Your task to perform on an android device: turn on location history Image 0: 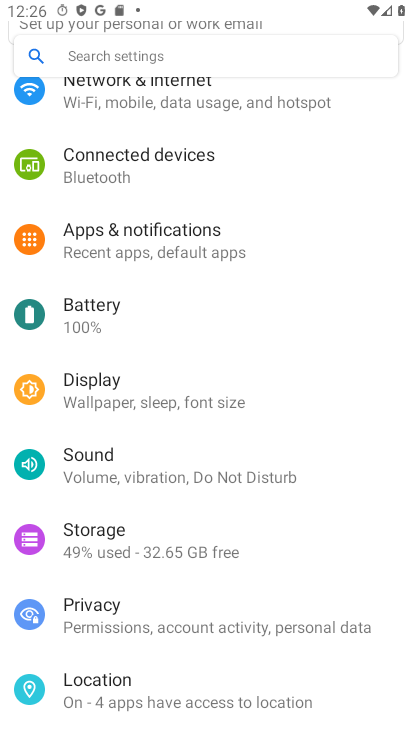
Step 0: click (138, 680)
Your task to perform on an android device: turn on location history Image 1: 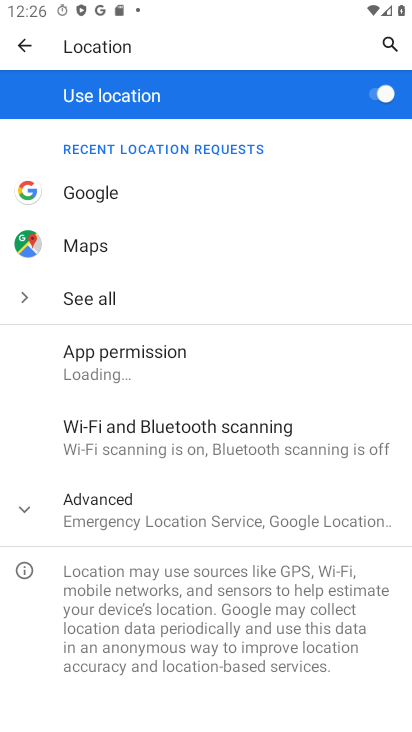
Step 1: click (125, 517)
Your task to perform on an android device: turn on location history Image 2: 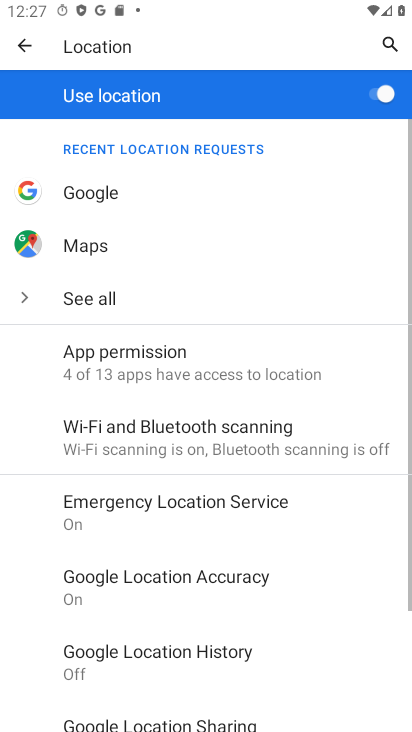
Step 2: click (171, 653)
Your task to perform on an android device: turn on location history Image 3: 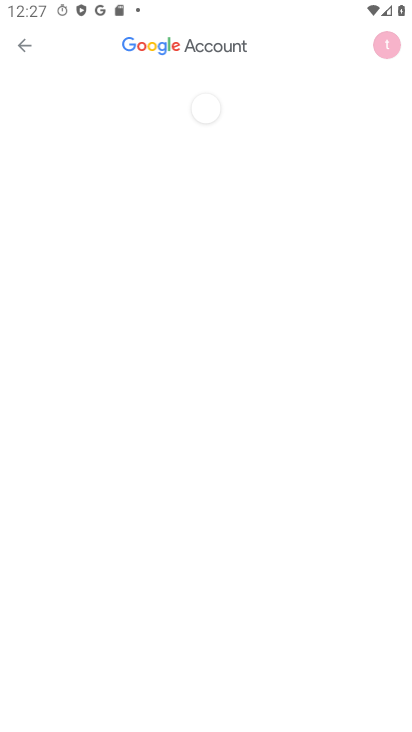
Step 3: drag from (244, 626) to (229, 360)
Your task to perform on an android device: turn on location history Image 4: 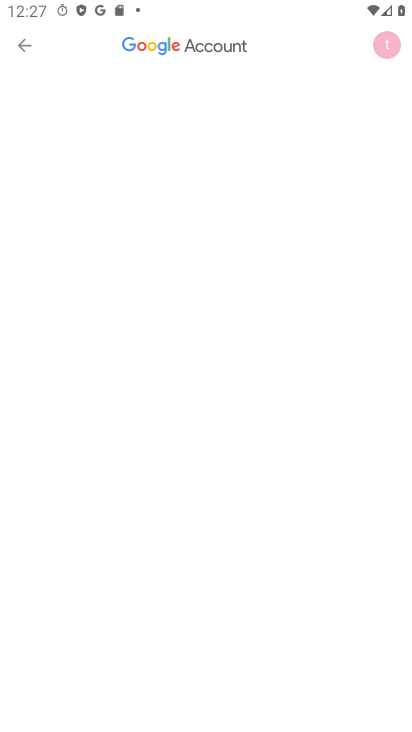
Step 4: drag from (229, 545) to (265, 327)
Your task to perform on an android device: turn on location history Image 5: 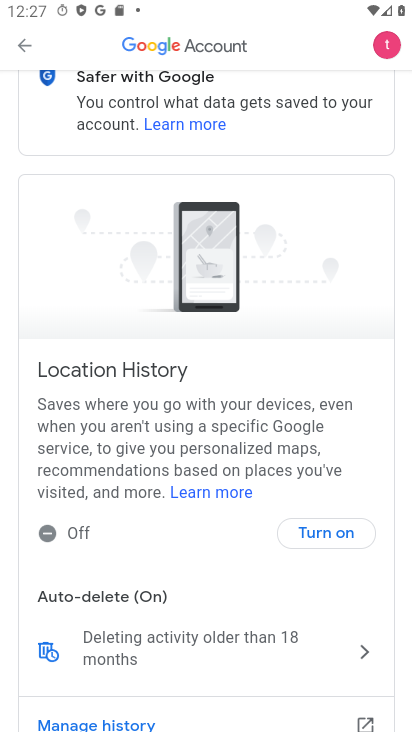
Step 5: drag from (209, 664) to (245, 391)
Your task to perform on an android device: turn on location history Image 6: 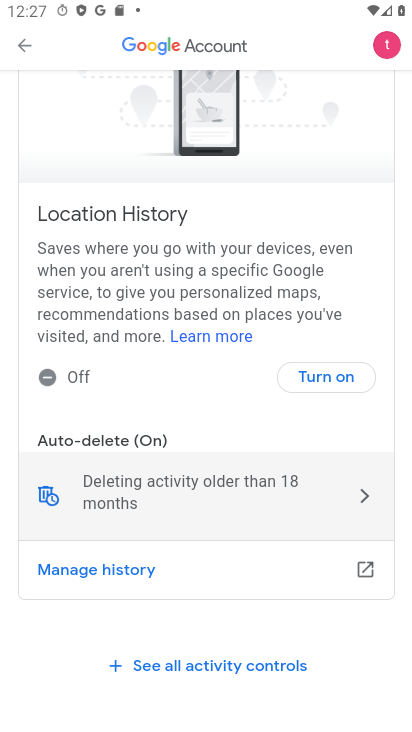
Step 6: click (321, 377)
Your task to perform on an android device: turn on location history Image 7: 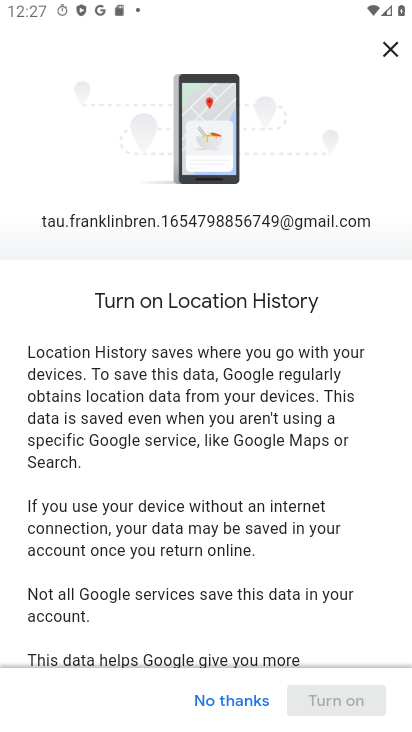
Step 7: drag from (244, 588) to (344, 122)
Your task to perform on an android device: turn on location history Image 8: 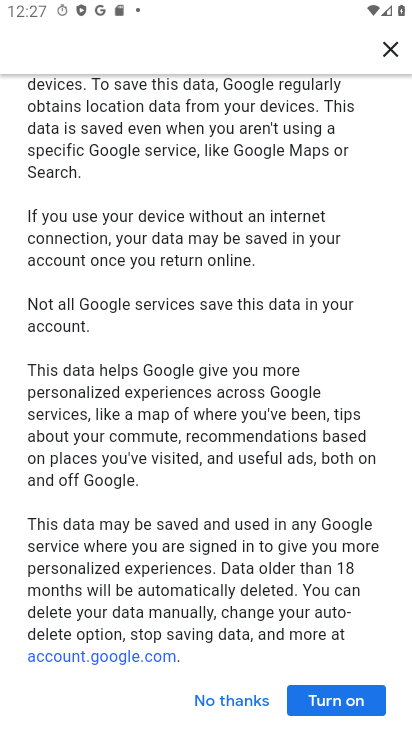
Step 8: drag from (215, 619) to (247, 365)
Your task to perform on an android device: turn on location history Image 9: 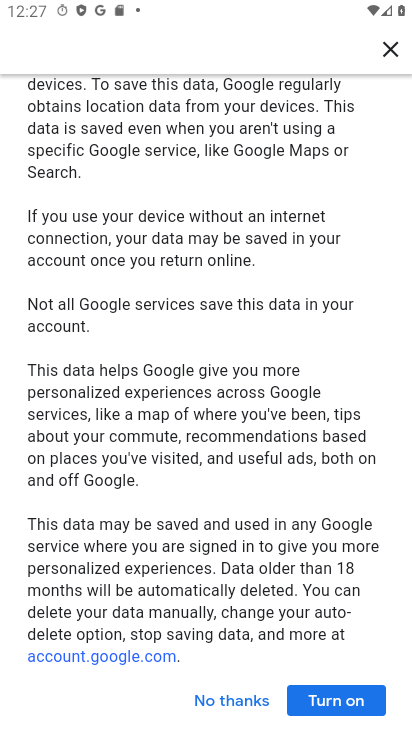
Step 9: click (332, 700)
Your task to perform on an android device: turn on location history Image 10: 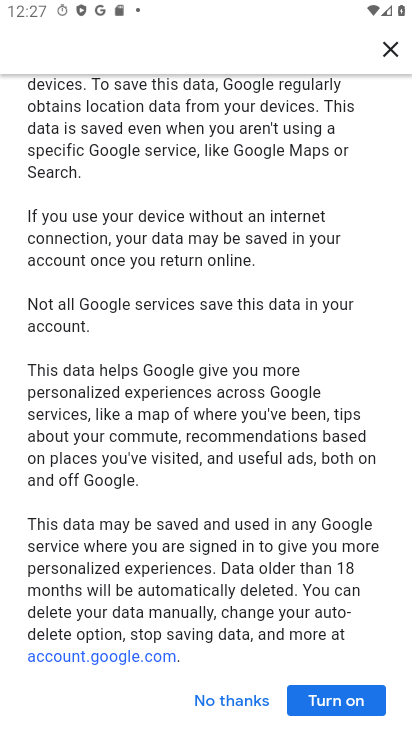
Step 10: click (332, 700)
Your task to perform on an android device: turn on location history Image 11: 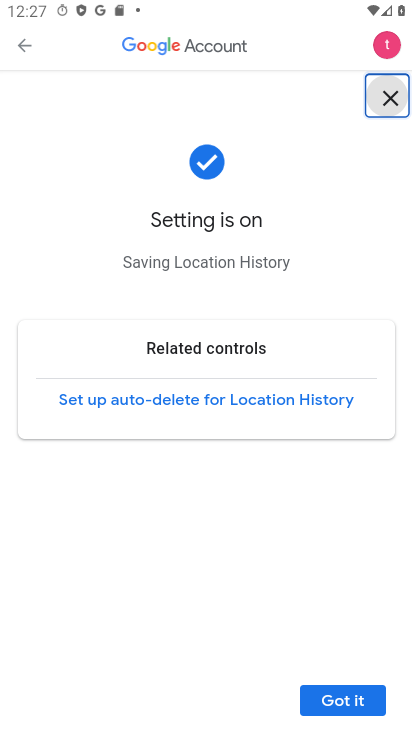
Step 11: drag from (295, 669) to (324, 385)
Your task to perform on an android device: turn on location history Image 12: 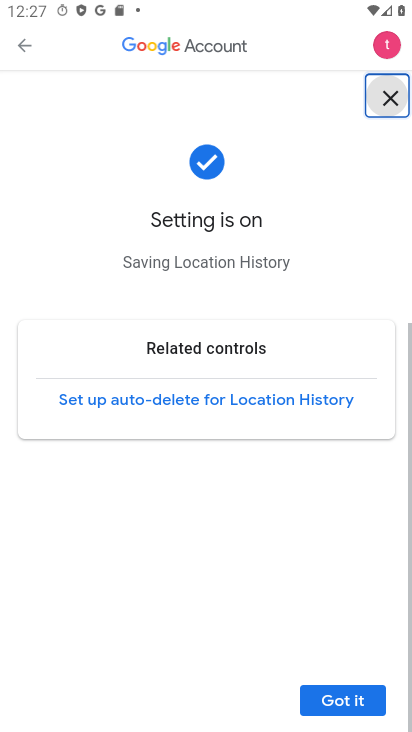
Step 12: click (340, 686)
Your task to perform on an android device: turn on location history Image 13: 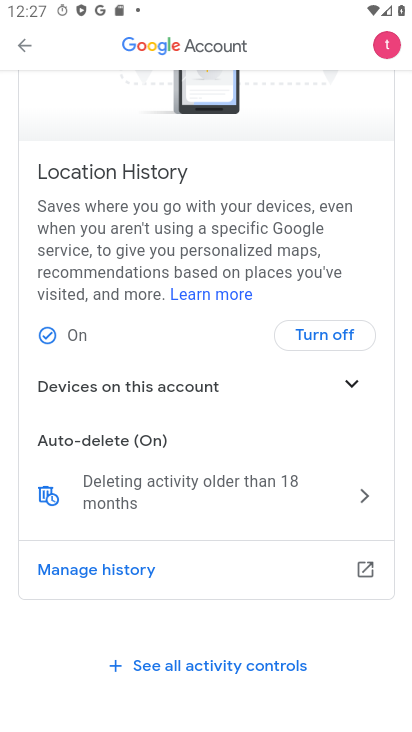
Step 13: click (324, 695)
Your task to perform on an android device: turn on location history Image 14: 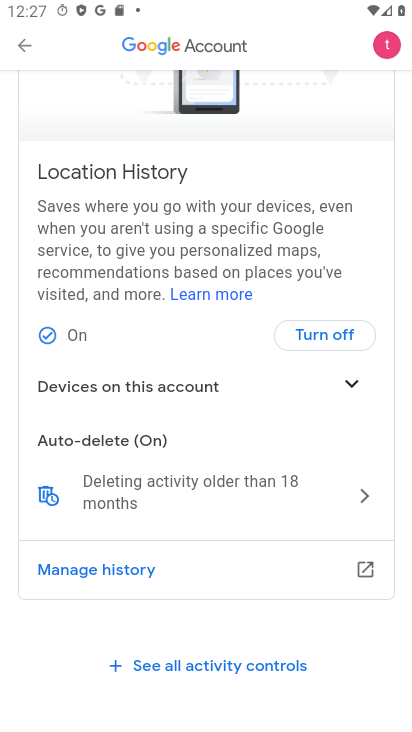
Step 14: task complete